Your task to perform on an android device: Open calendar and show me the second week of next month Image 0: 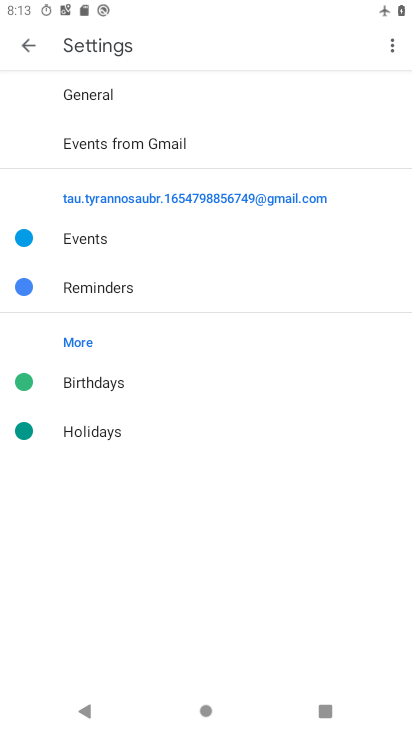
Step 0: press back button
Your task to perform on an android device: Open calendar and show me the second week of next month Image 1: 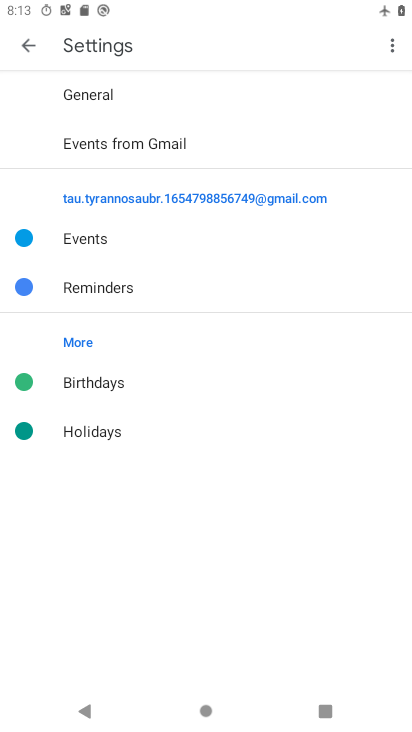
Step 1: press back button
Your task to perform on an android device: Open calendar and show me the second week of next month Image 2: 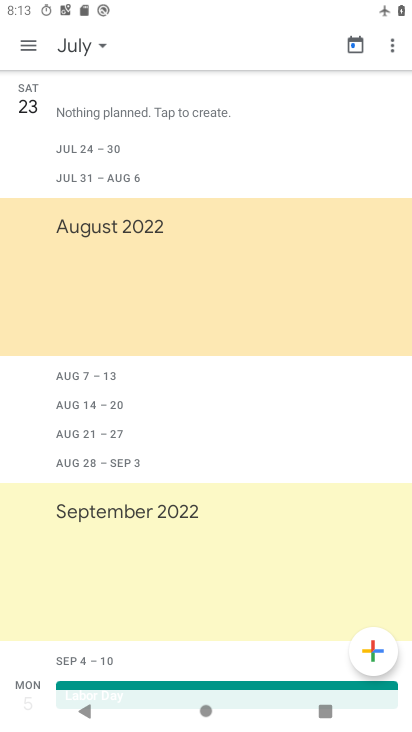
Step 2: press home button
Your task to perform on an android device: Open calendar and show me the second week of next month Image 3: 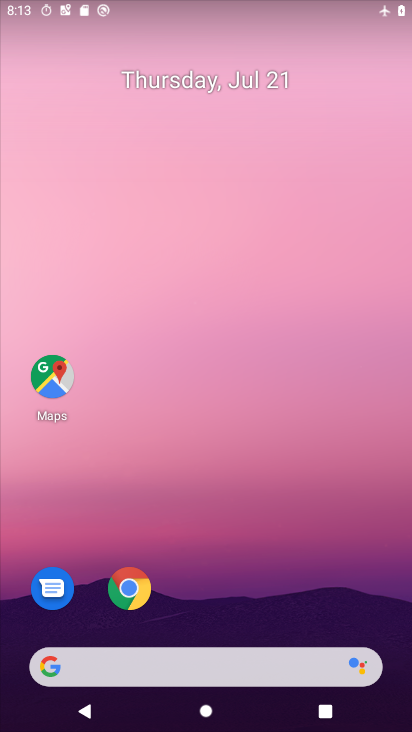
Step 3: drag from (232, 610) to (171, 206)
Your task to perform on an android device: Open calendar and show me the second week of next month Image 4: 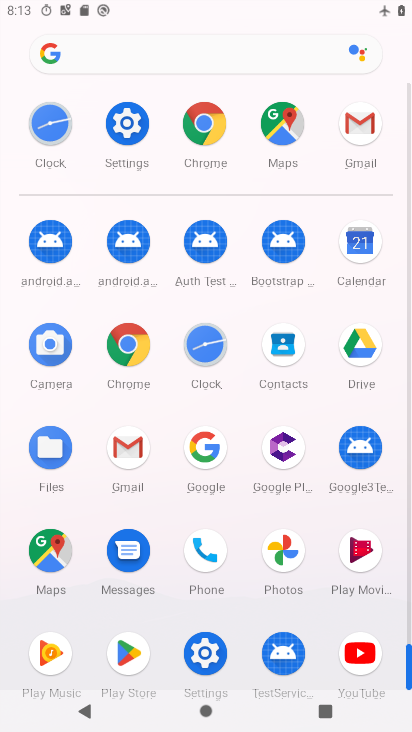
Step 4: click (353, 231)
Your task to perform on an android device: Open calendar and show me the second week of next month Image 5: 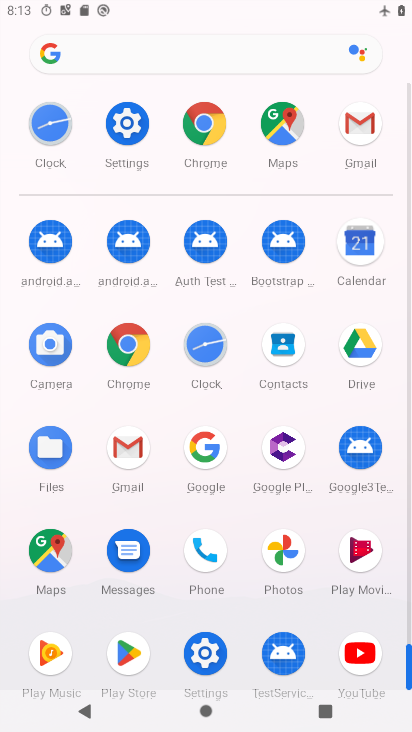
Step 5: click (359, 236)
Your task to perform on an android device: Open calendar and show me the second week of next month Image 6: 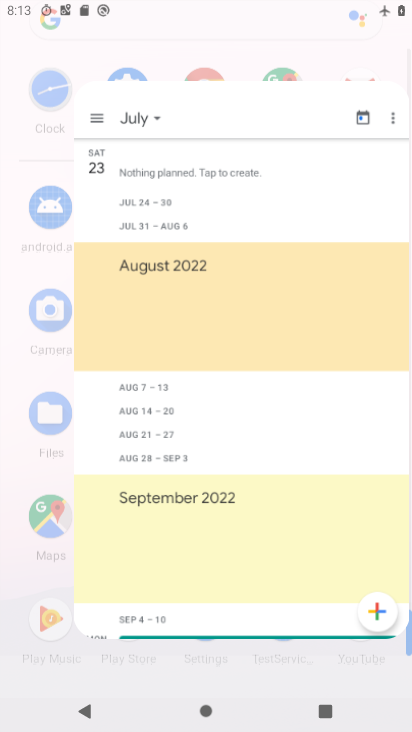
Step 6: click (359, 236)
Your task to perform on an android device: Open calendar and show me the second week of next month Image 7: 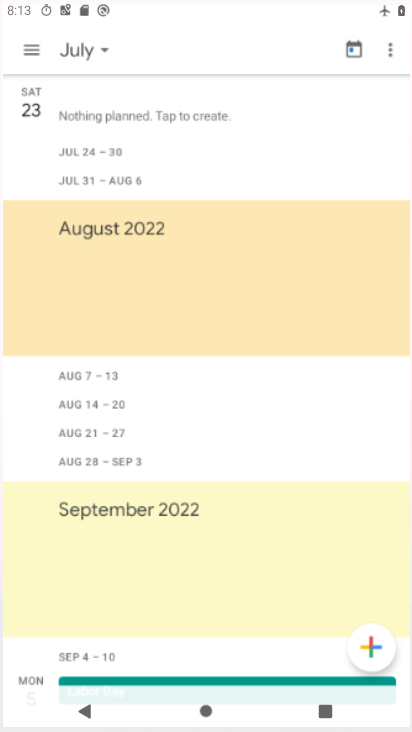
Step 7: click (359, 236)
Your task to perform on an android device: Open calendar and show me the second week of next month Image 8: 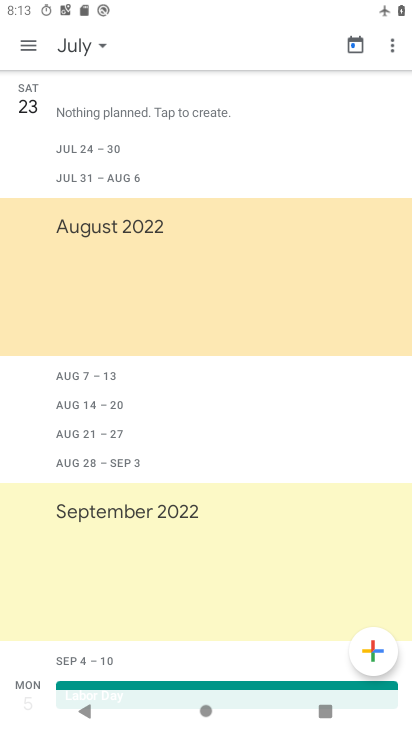
Step 8: click (100, 39)
Your task to perform on an android device: Open calendar and show me the second week of next month Image 9: 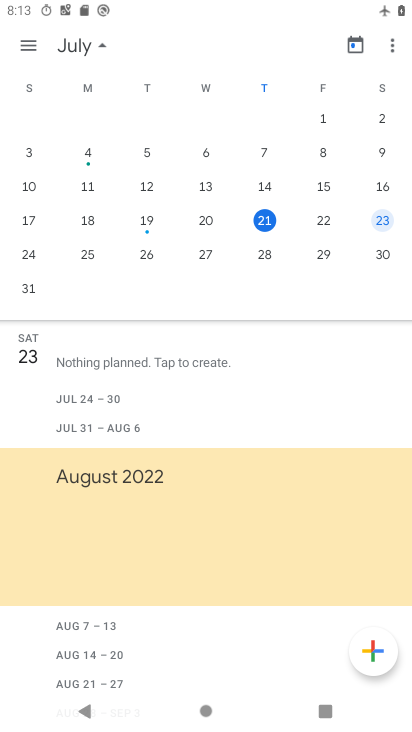
Step 9: drag from (304, 174) to (57, 202)
Your task to perform on an android device: Open calendar and show me the second week of next month Image 10: 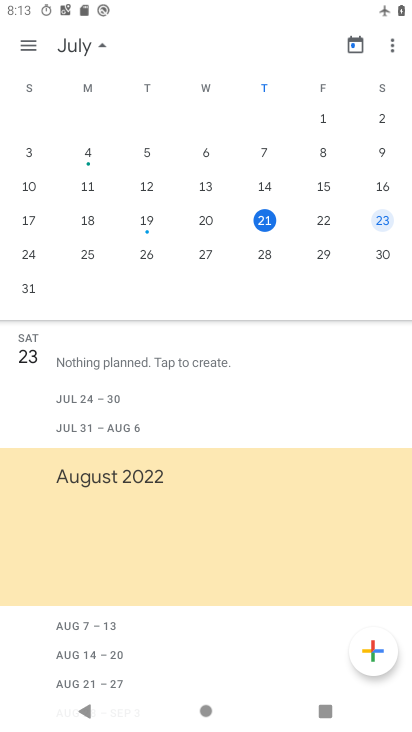
Step 10: drag from (345, 202) to (68, 201)
Your task to perform on an android device: Open calendar and show me the second week of next month Image 11: 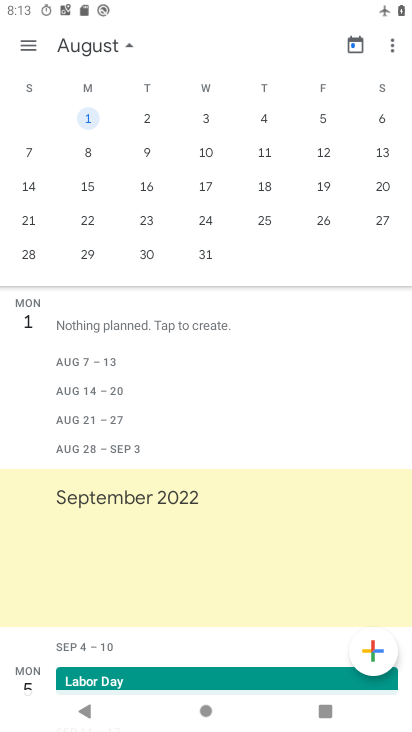
Step 11: click (149, 148)
Your task to perform on an android device: Open calendar and show me the second week of next month Image 12: 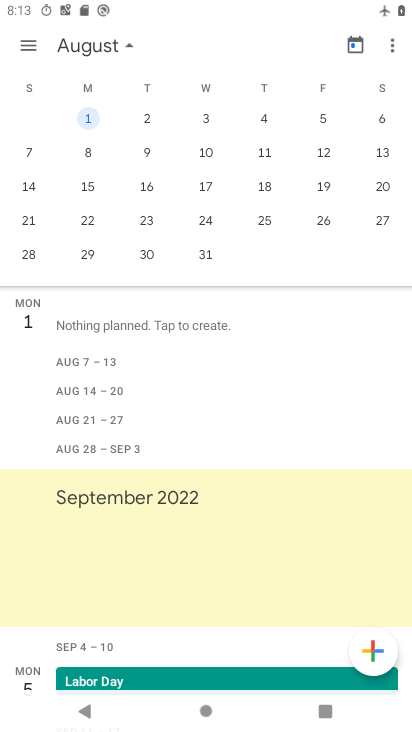
Step 12: click (149, 148)
Your task to perform on an android device: Open calendar and show me the second week of next month Image 13: 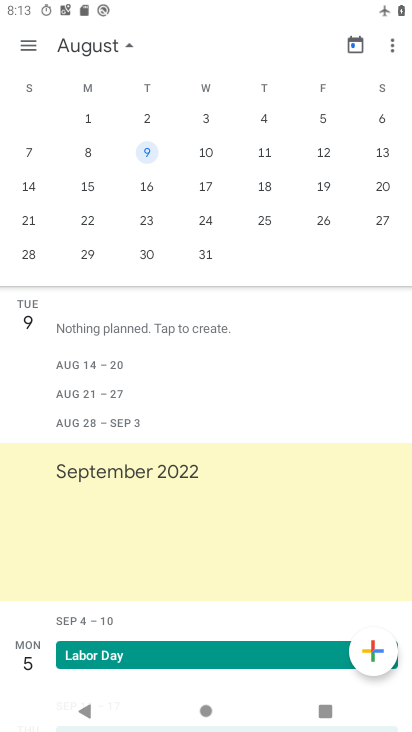
Step 13: click (149, 149)
Your task to perform on an android device: Open calendar and show me the second week of next month Image 14: 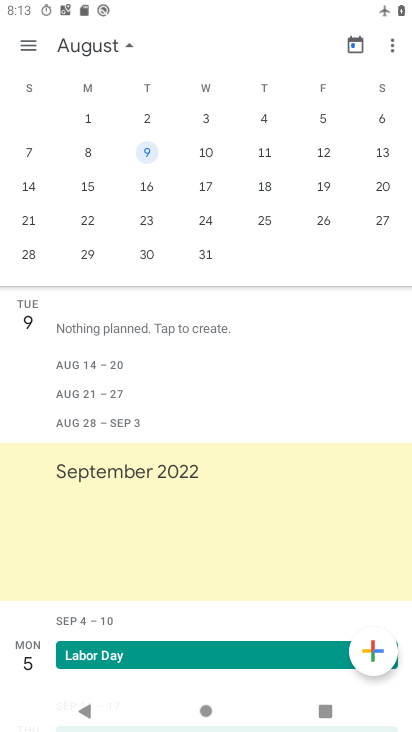
Step 14: task complete